Your task to perform on an android device: Search for sushi restaurants on Maps Image 0: 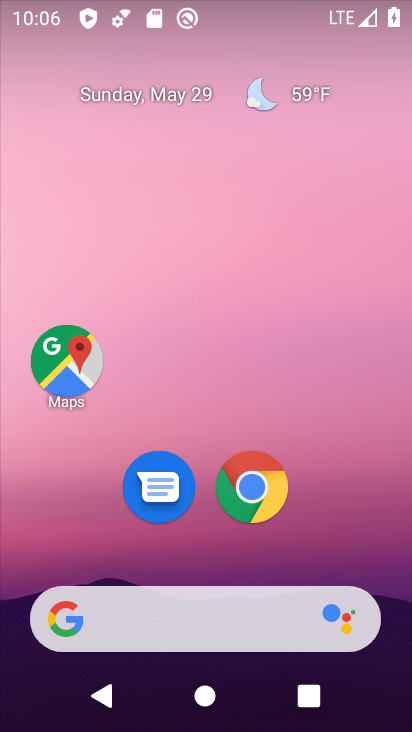
Step 0: click (73, 371)
Your task to perform on an android device: Search for sushi restaurants on Maps Image 1: 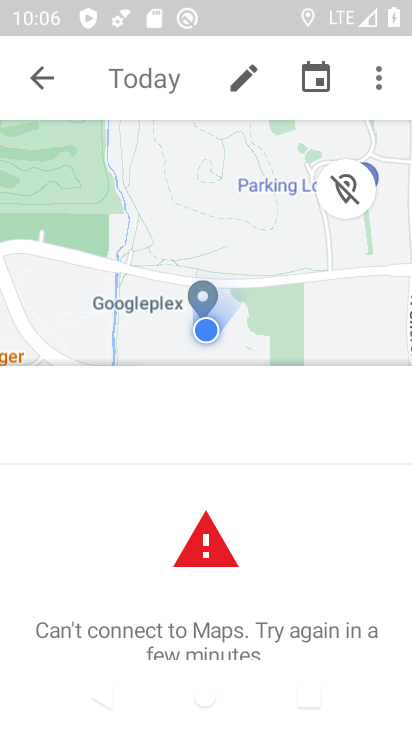
Step 1: click (26, 74)
Your task to perform on an android device: Search for sushi restaurants on Maps Image 2: 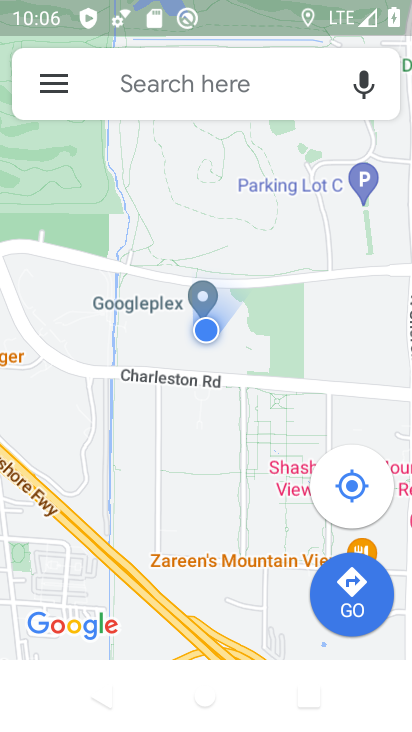
Step 2: click (112, 82)
Your task to perform on an android device: Search for sushi restaurants on Maps Image 3: 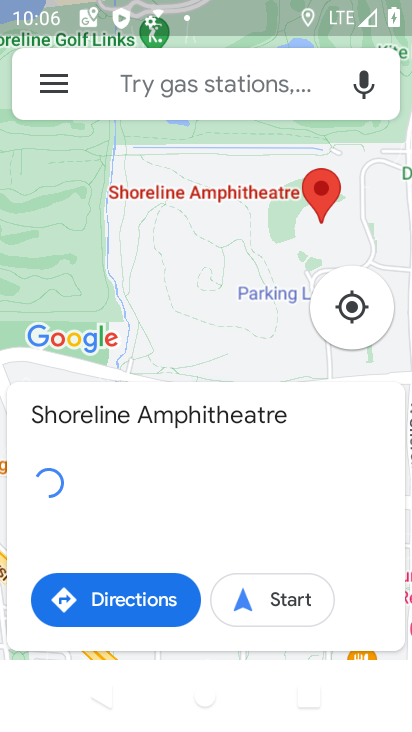
Step 3: click (108, 75)
Your task to perform on an android device: Search for sushi restaurants on Maps Image 4: 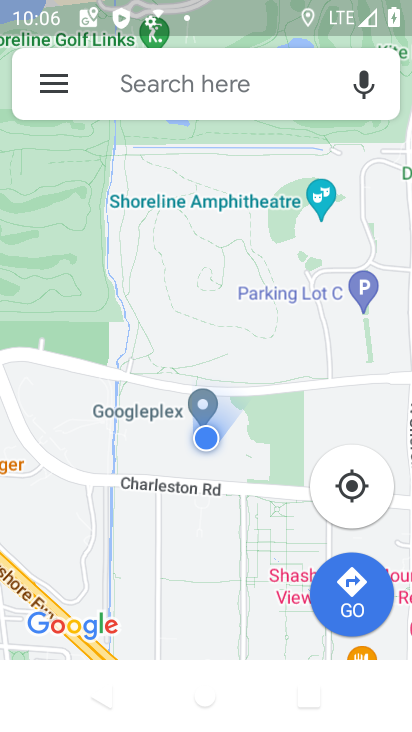
Step 4: click (115, 81)
Your task to perform on an android device: Search for sushi restaurants on Maps Image 5: 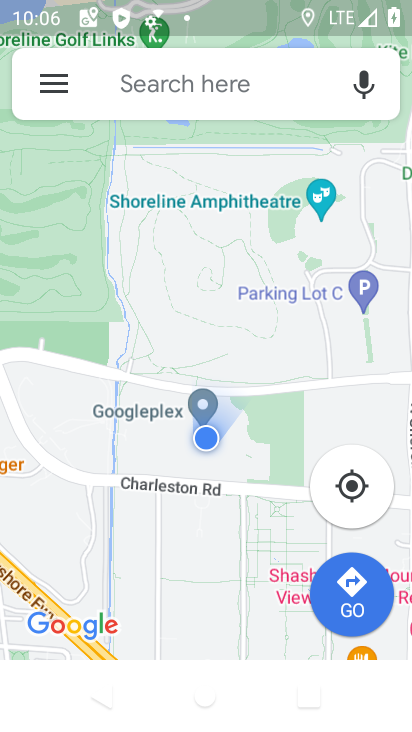
Step 5: press back button
Your task to perform on an android device: Search for sushi restaurants on Maps Image 6: 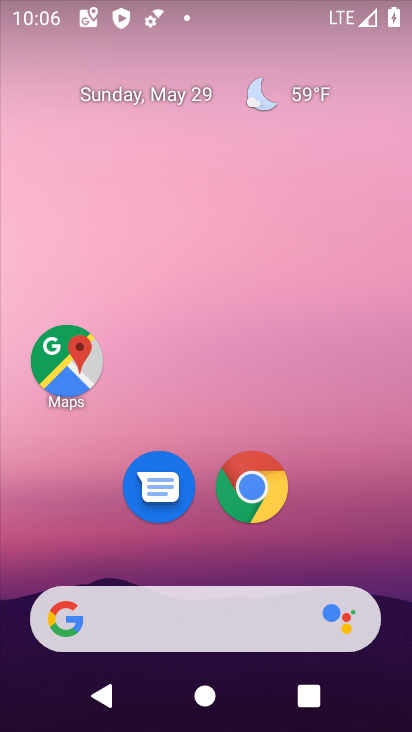
Step 6: click (86, 367)
Your task to perform on an android device: Search for sushi restaurants on Maps Image 7: 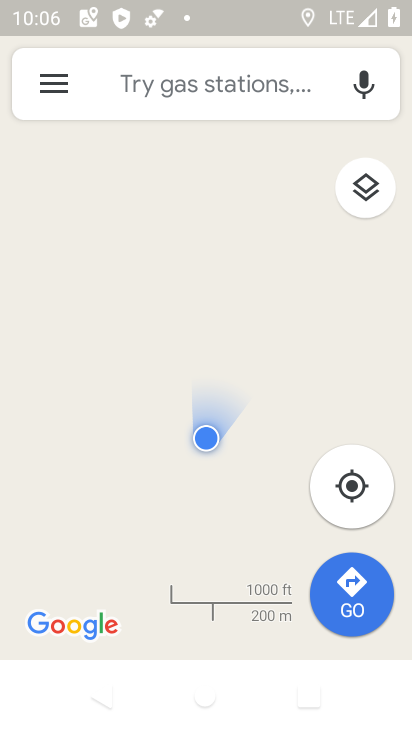
Step 7: click (165, 85)
Your task to perform on an android device: Search for sushi restaurants on Maps Image 8: 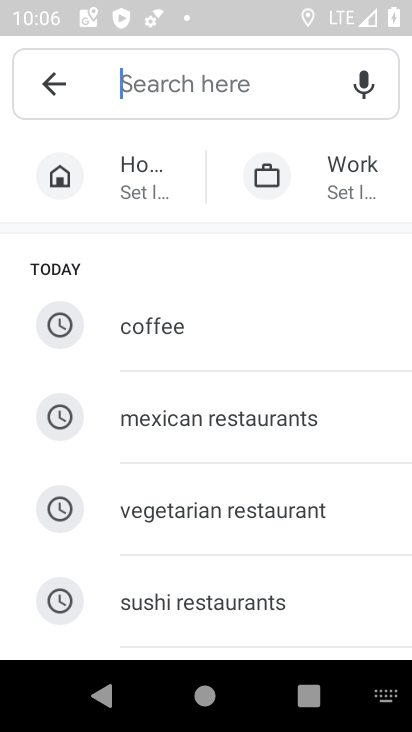
Step 8: type "sushi restaurants "
Your task to perform on an android device: Search for sushi restaurants on Maps Image 9: 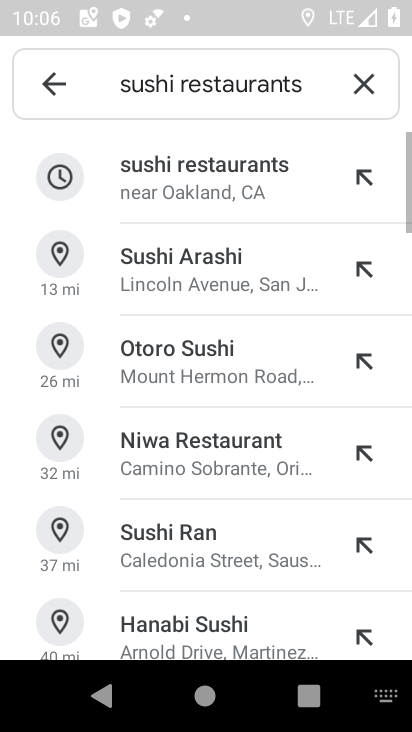
Step 9: click (128, 177)
Your task to perform on an android device: Search for sushi restaurants on Maps Image 10: 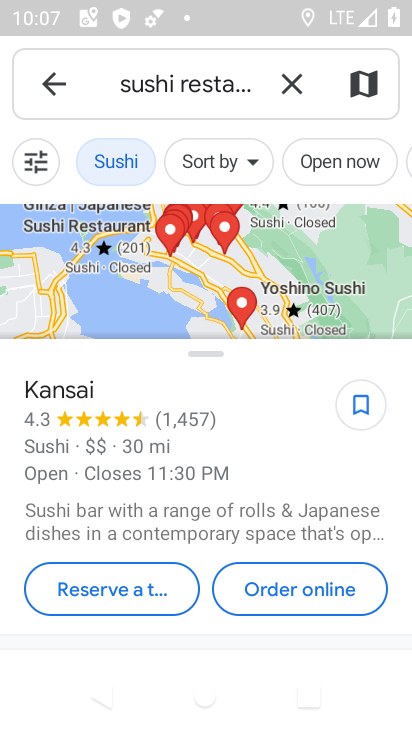
Step 10: task complete